Your task to perform on an android device: Open Yahoo.com Image 0: 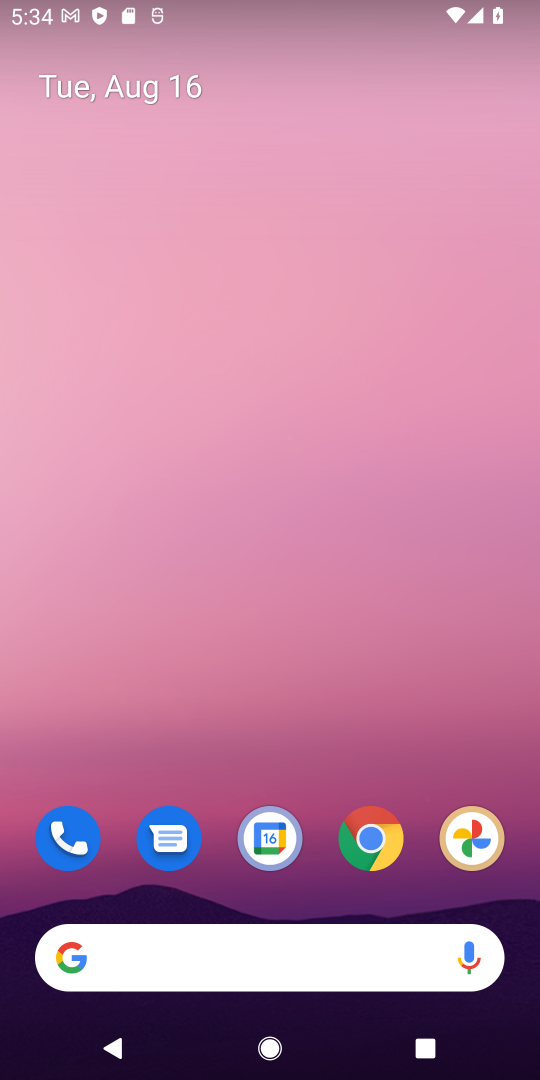
Step 0: click (370, 837)
Your task to perform on an android device: Open Yahoo.com Image 1: 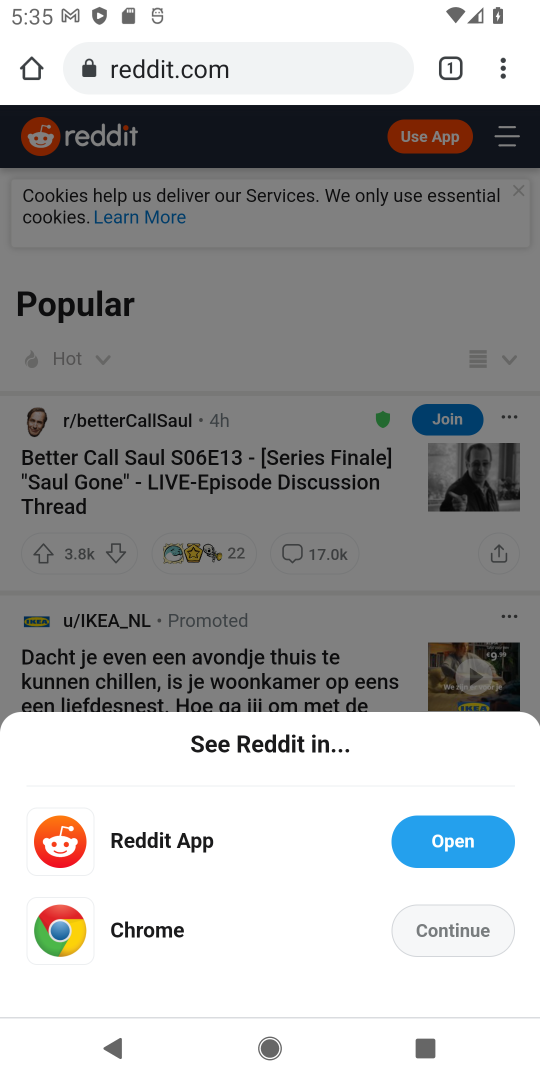
Step 1: click (432, 75)
Your task to perform on an android device: Open Yahoo.com Image 2: 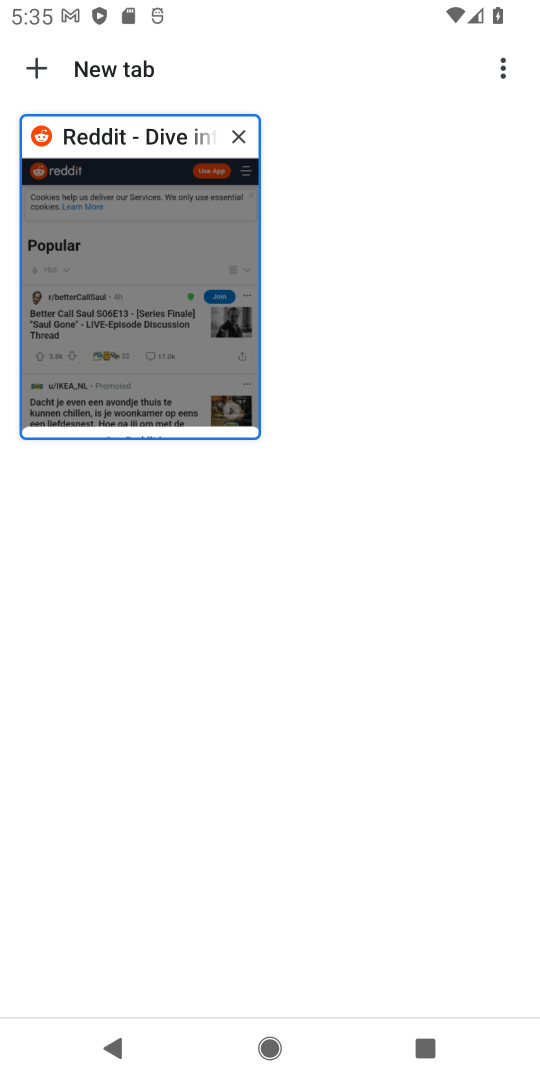
Step 2: click (46, 63)
Your task to perform on an android device: Open Yahoo.com Image 3: 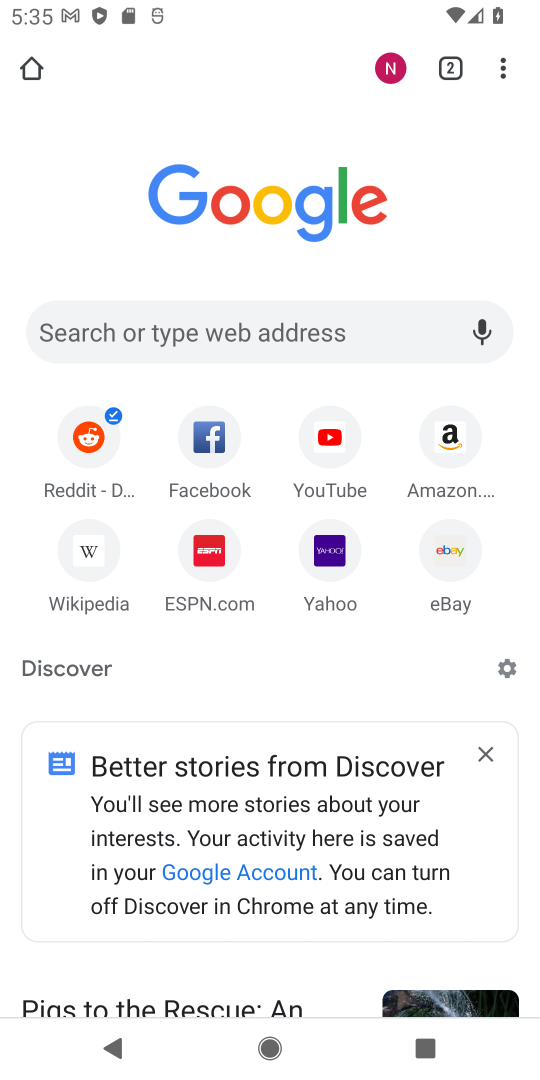
Step 3: click (328, 528)
Your task to perform on an android device: Open Yahoo.com Image 4: 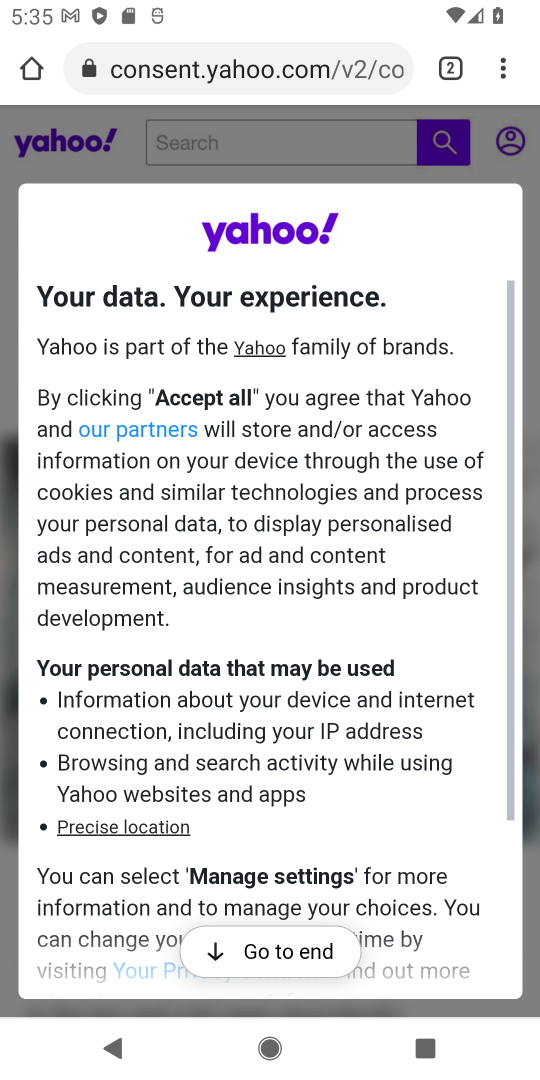
Step 4: task complete